Your task to perform on an android device: change the clock display to analog Image 0: 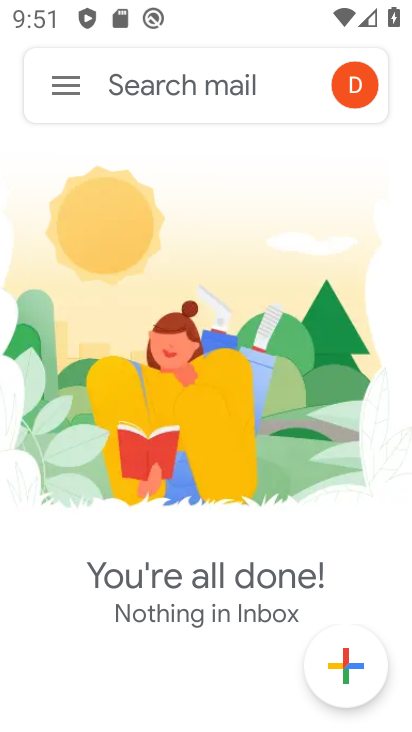
Step 0: press home button
Your task to perform on an android device: change the clock display to analog Image 1: 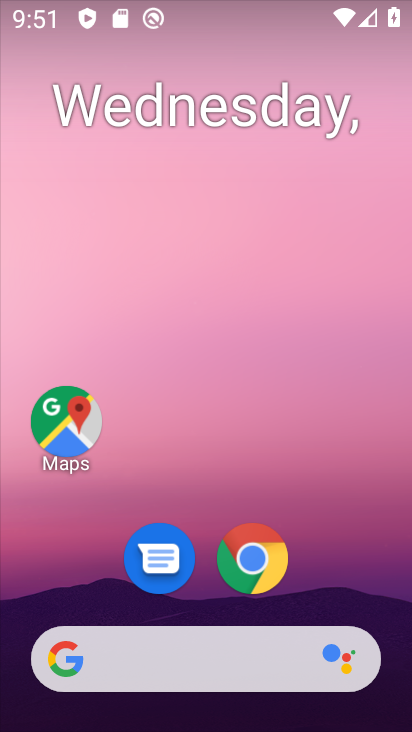
Step 1: drag from (65, 475) to (239, 140)
Your task to perform on an android device: change the clock display to analog Image 2: 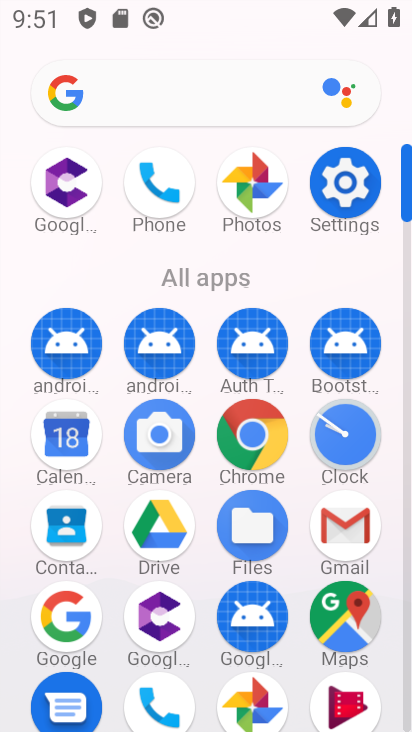
Step 2: click (339, 450)
Your task to perform on an android device: change the clock display to analog Image 3: 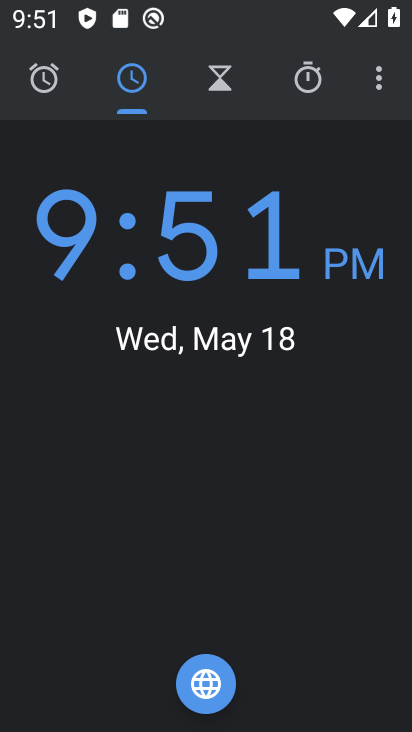
Step 3: click (383, 85)
Your task to perform on an android device: change the clock display to analog Image 4: 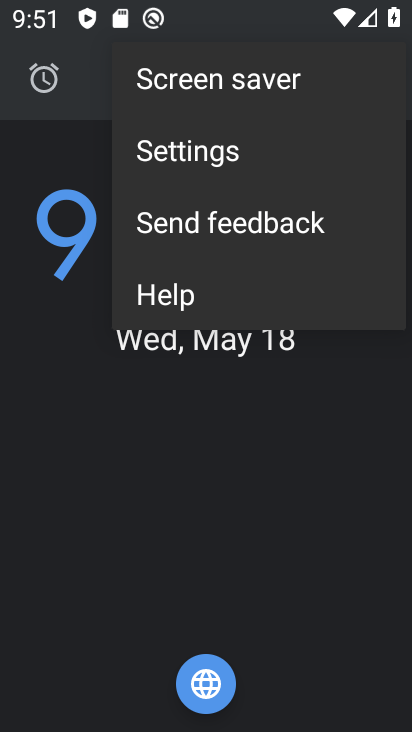
Step 4: click (190, 155)
Your task to perform on an android device: change the clock display to analog Image 5: 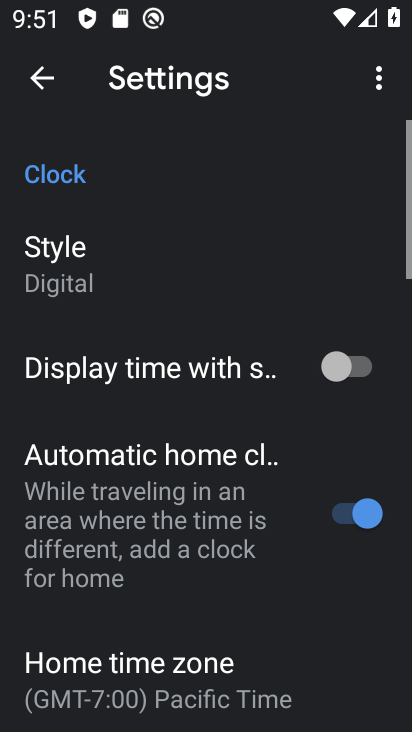
Step 5: click (156, 269)
Your task to perform on an android device: change the clock display to analog Image 6: 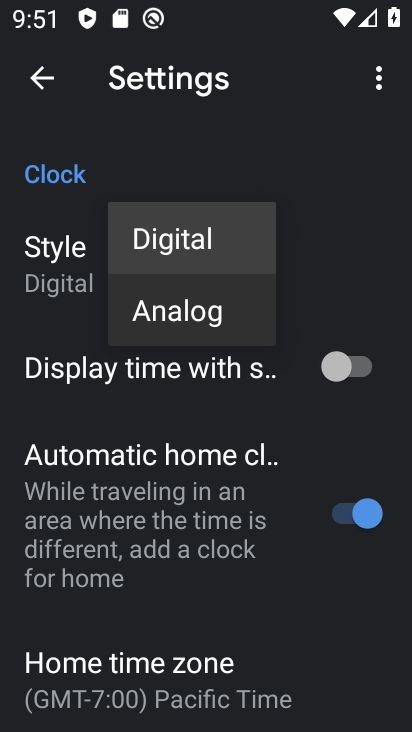
Step 6: click (158, 327)
Your task to perform on an android device: change the clock display to analog Image 7: 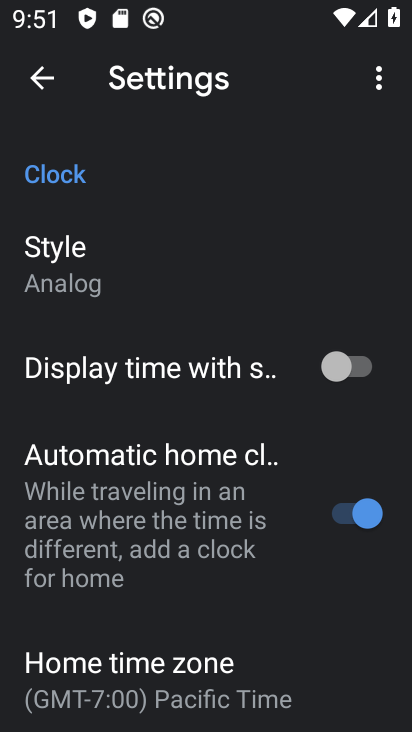
Step 7: task complete